Your task to perform on an android device: turn off notifications in google photos Image 0: 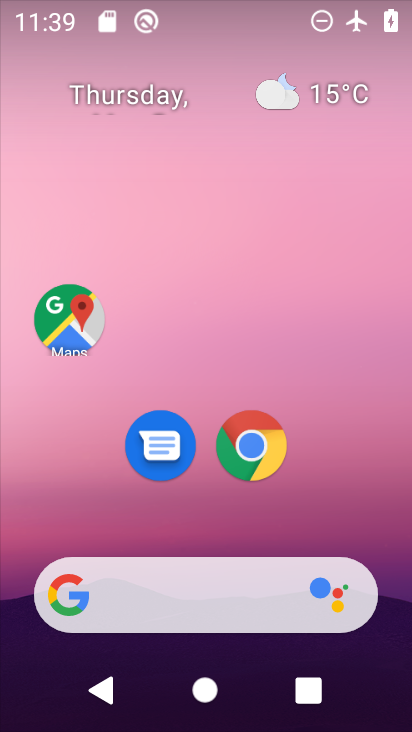
Step 0: drag from (211, 537) to (209, 26)
Your task to perform on an android device: turn off notifications in google photos Image 1: 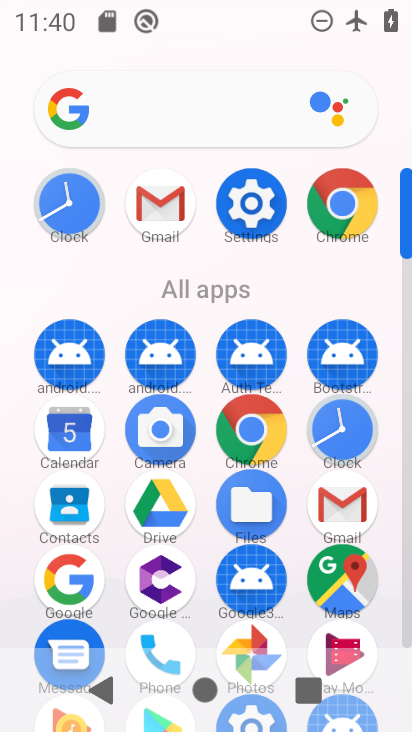
Step 1: click (261, 634)
Your task to perform on an android device: turn off notifications in google photos Image 2: 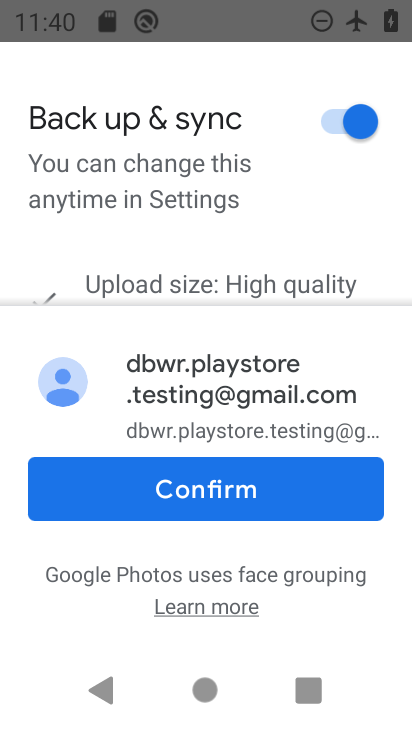
Step 2: click (222, 498)
Your task to perform on an android device: turn off notifications in google photos Image 3: 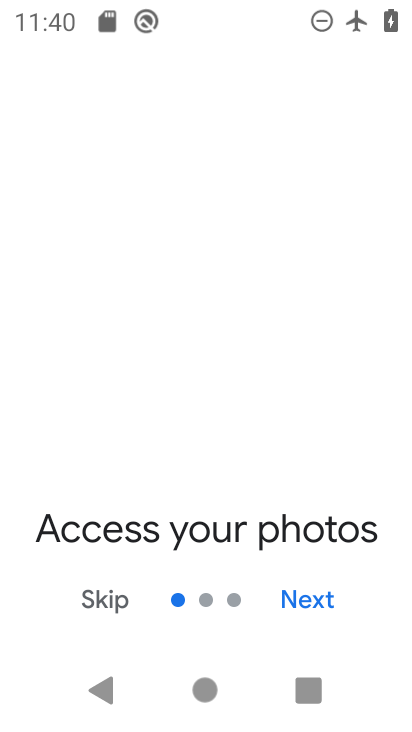
Step 3: click (303, 599)
Your task to perform on an android device: turn off notifications in google photos Image 4: 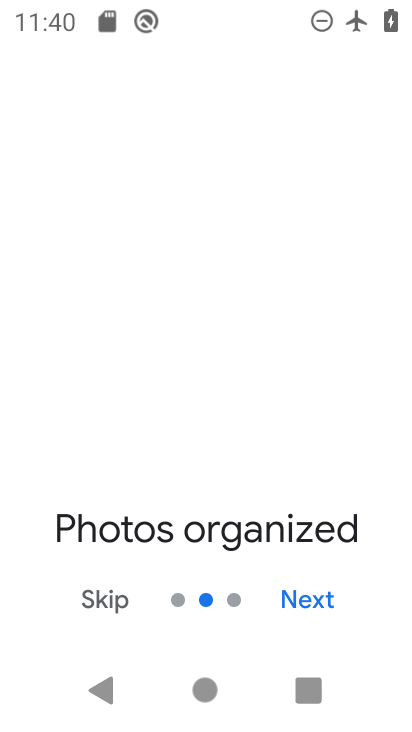
Step 4: click (304, 604)
Your task to perform on an android device: turn off notifications in google photos Image 5: 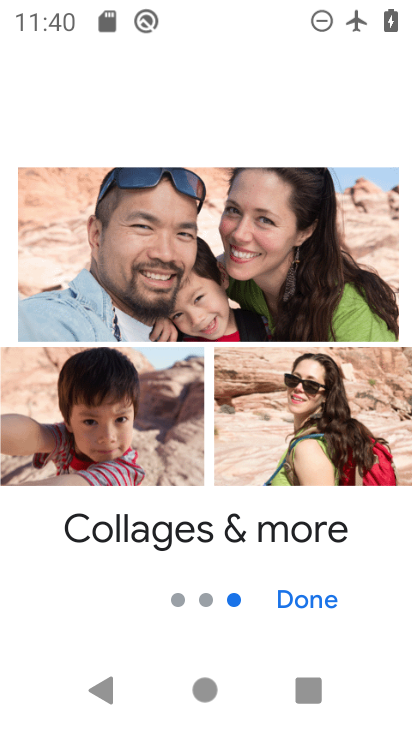
Step 5: click (313, 591)
Your task to perform on an android device: turn off notifications in google photos Image 6: 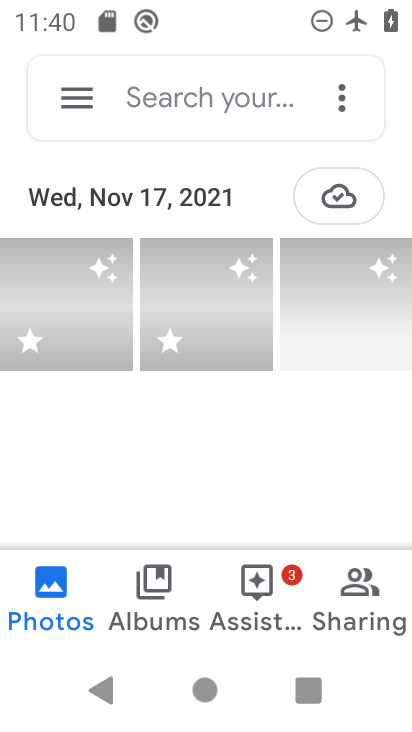
Step 6: click (74, 99)
Your task to perform on an android device: turn off notifications in google photos Image 7: 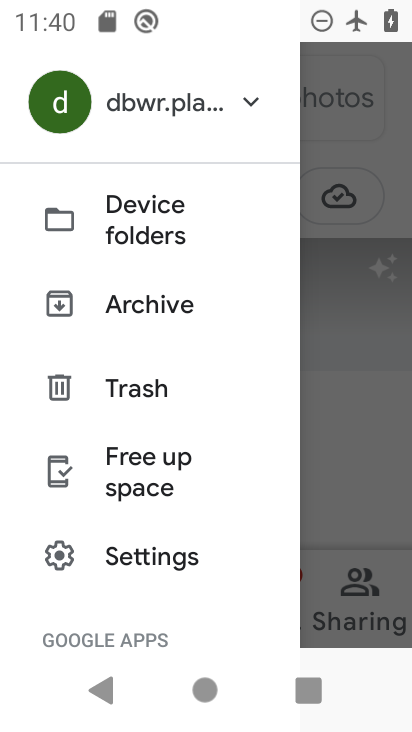
Step 7: click (169, 561)
Your task to perform on an android device: turn off notifications in google photos Image 8: 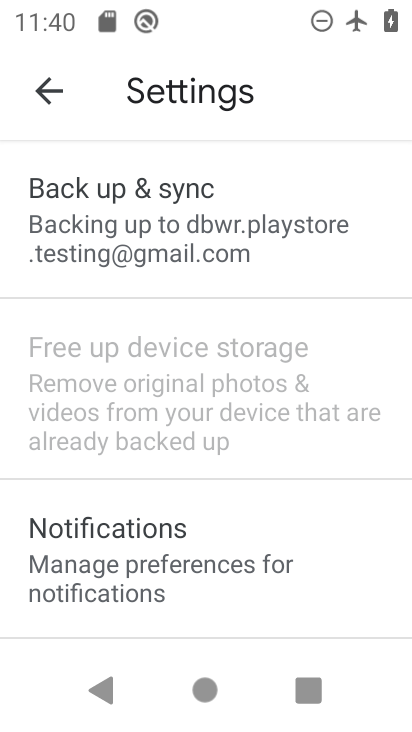
Step 8: click (161, 555)
Your task to perform on an android device: turn off notifications in google photos Image 9: 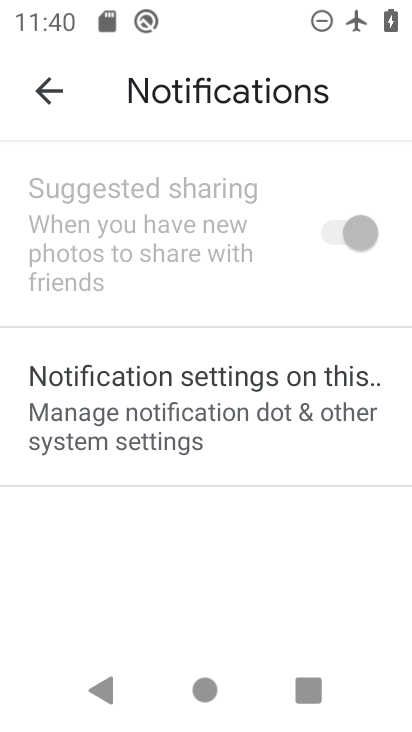
Step 9: click (48, 91)
Your task to perform on an android device: turn off notifications in google photos Image 10: 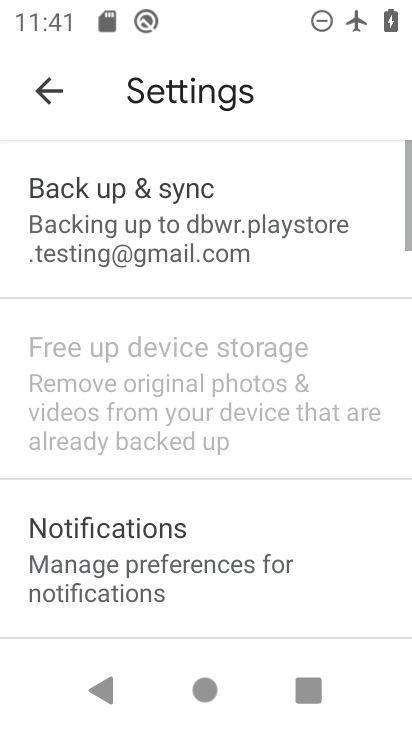
Step 10: task complete